Your task to perform on an android device: open app "YouTube Kids" (install if not already installed) Image 0: 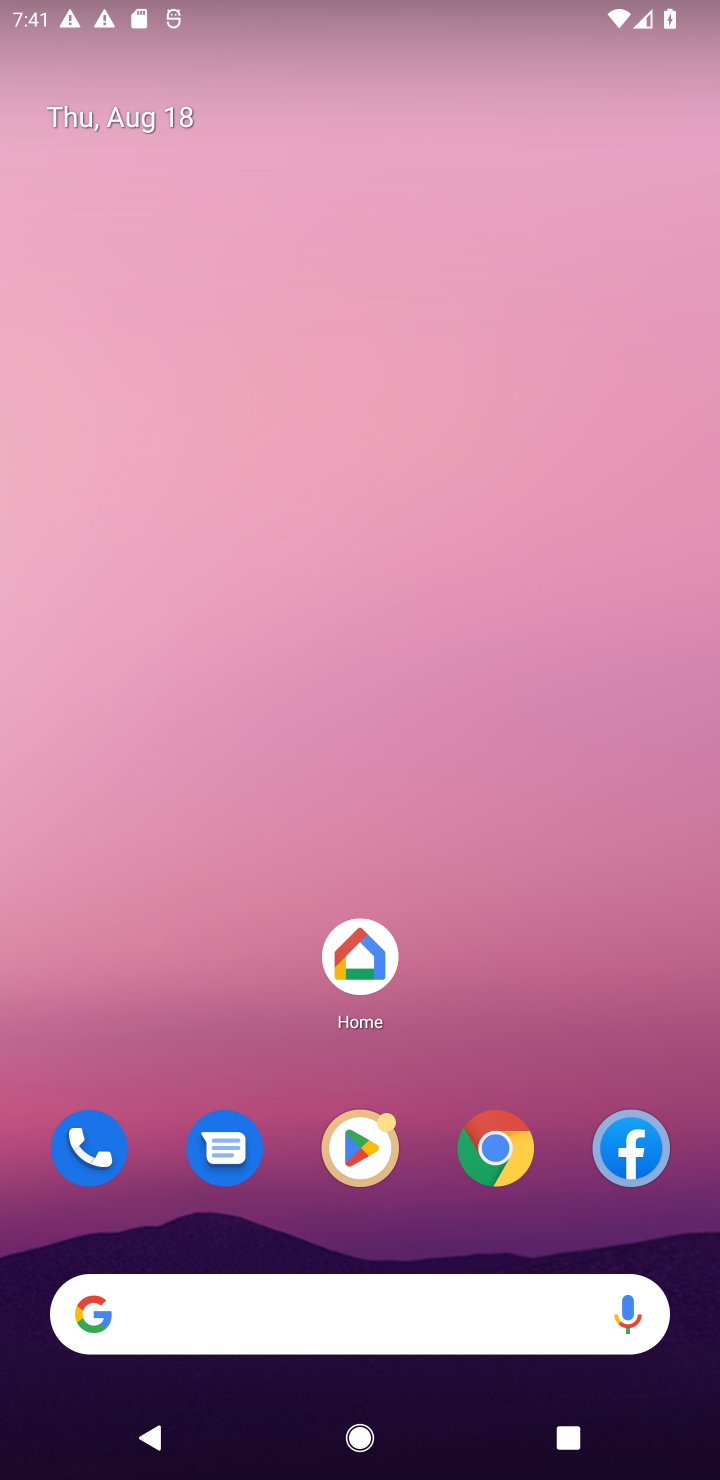
Step 0: drag from (260, 1154) to (5, 162)
Your task to perform on an android device: open app "YouTube Kids" (install if not already installed) Image 1: 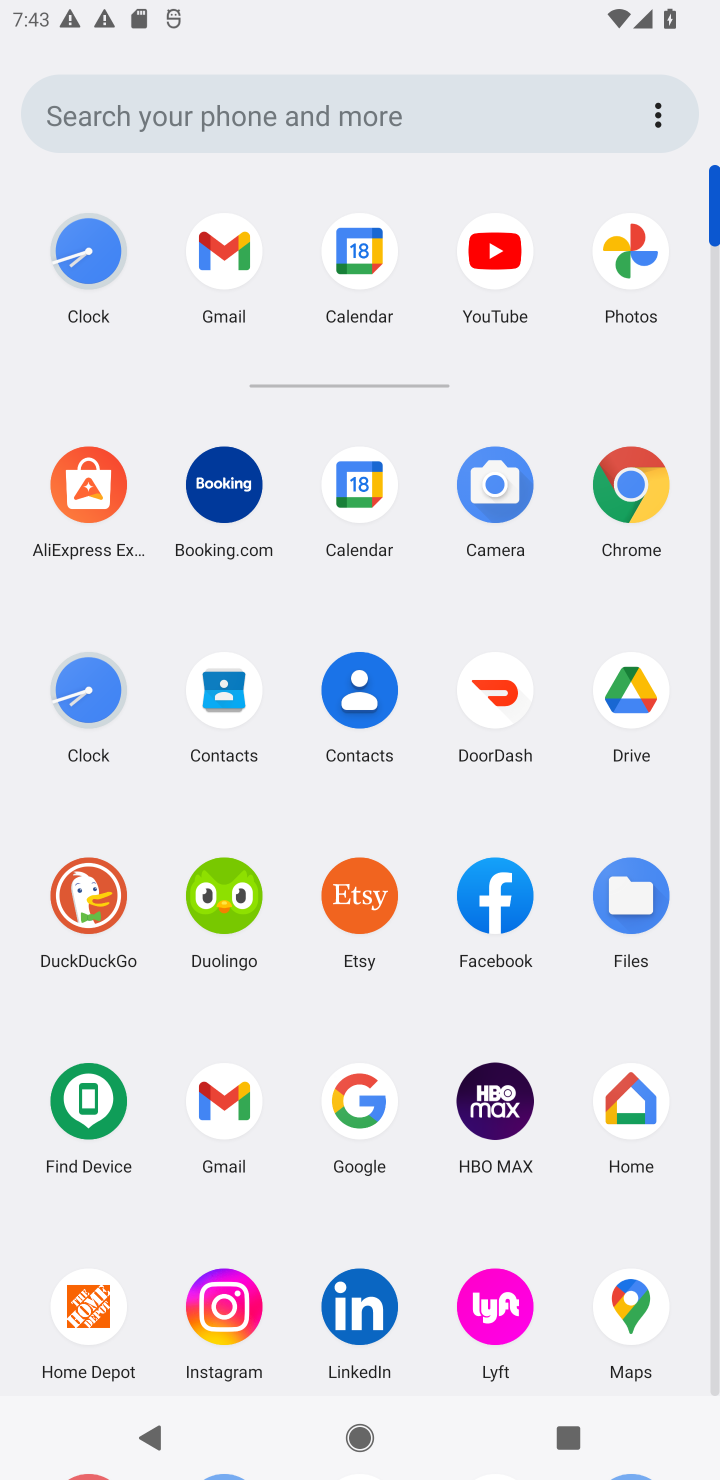
Step 1: drag from (362, 888) to (301, 228)
Your task to perform on an android device: open app "YouTube Kids" (install if not already installed) Image 2: 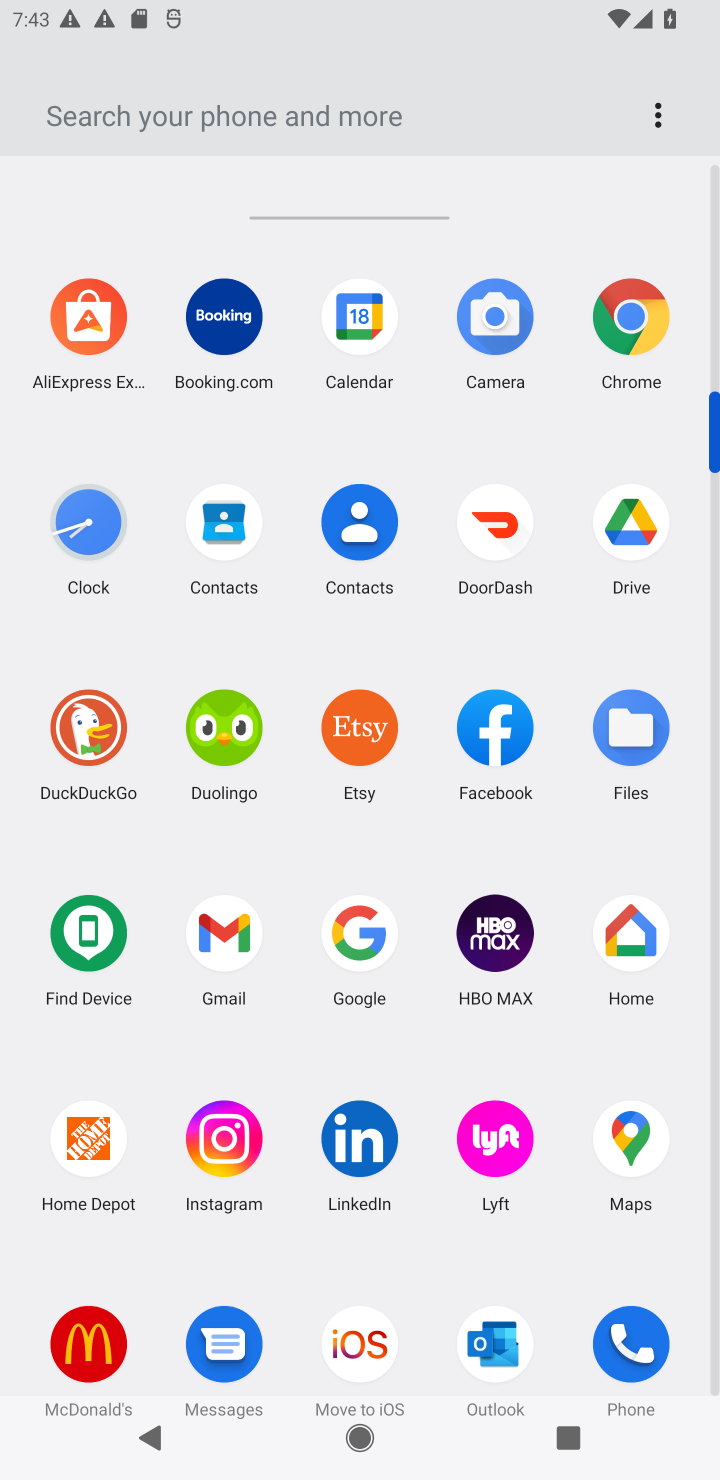
Step 2: drag from (259, 1040) to (369, 318)
Your task to perform on an android device: open app "YouTube Kids" (install if not already installed) Image 3: 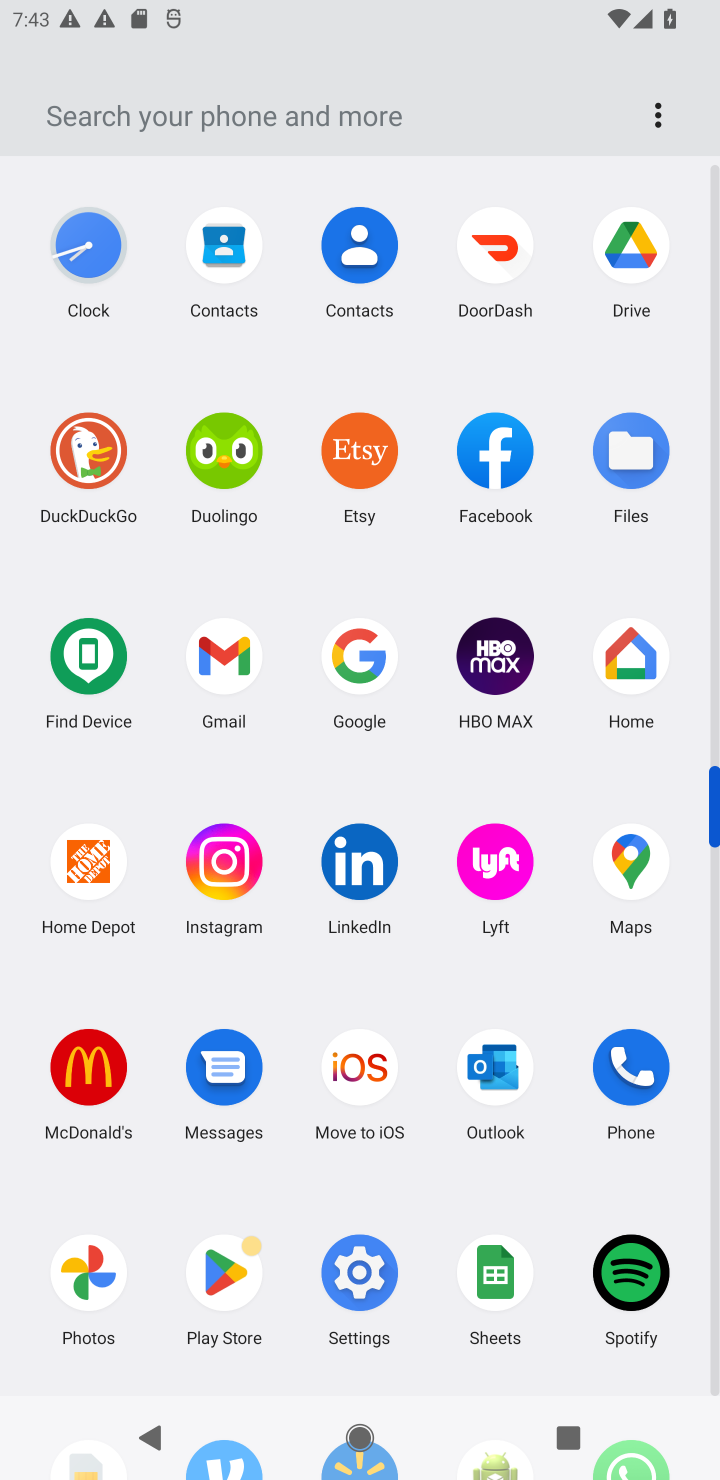
Step 3: drag from (236, 975) to (365, 411)
Your task to perform on an android device: open app "YouTube Kids" (install if not already installed) Image 4: 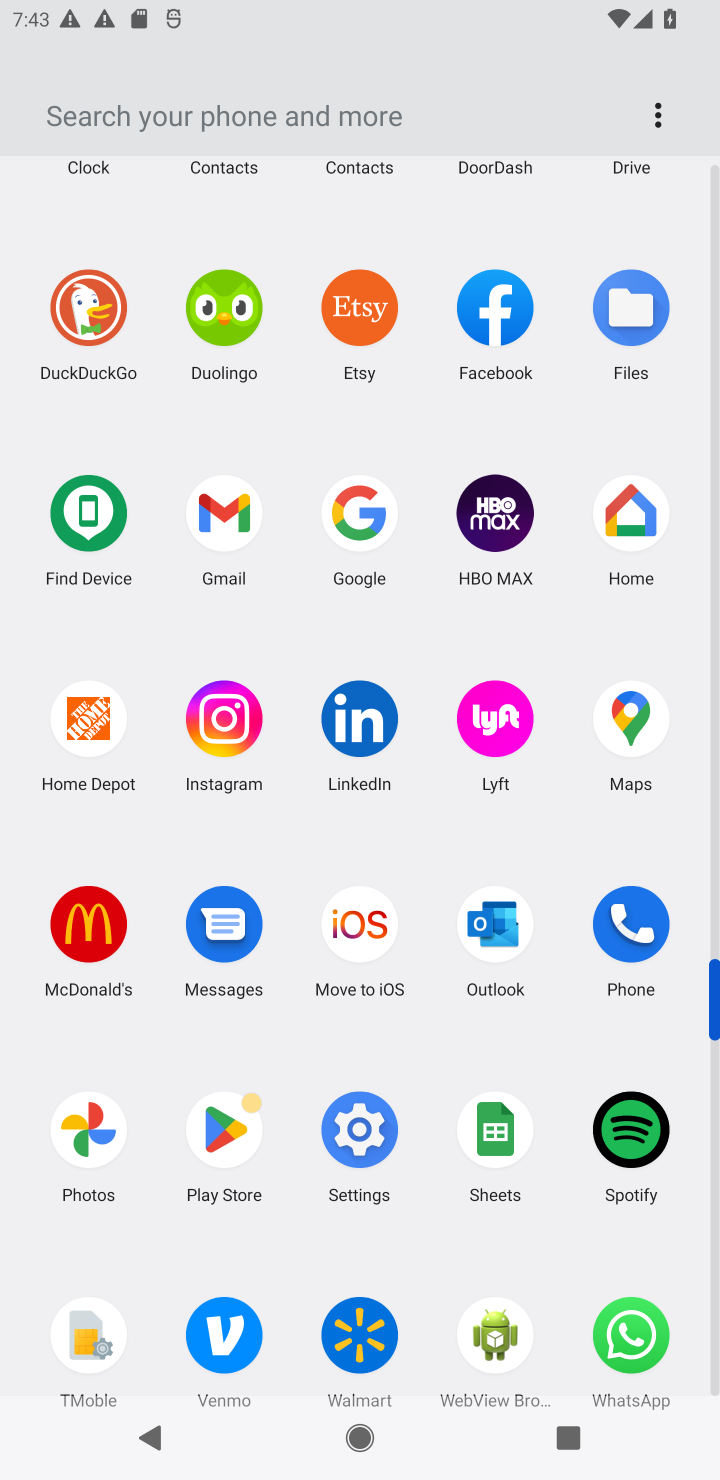
Step 4: drag from (358, 1384) to (402, 503)
Your task to perform on an android device: open app "YouTube Kids" (install if not already installed) Image 5: 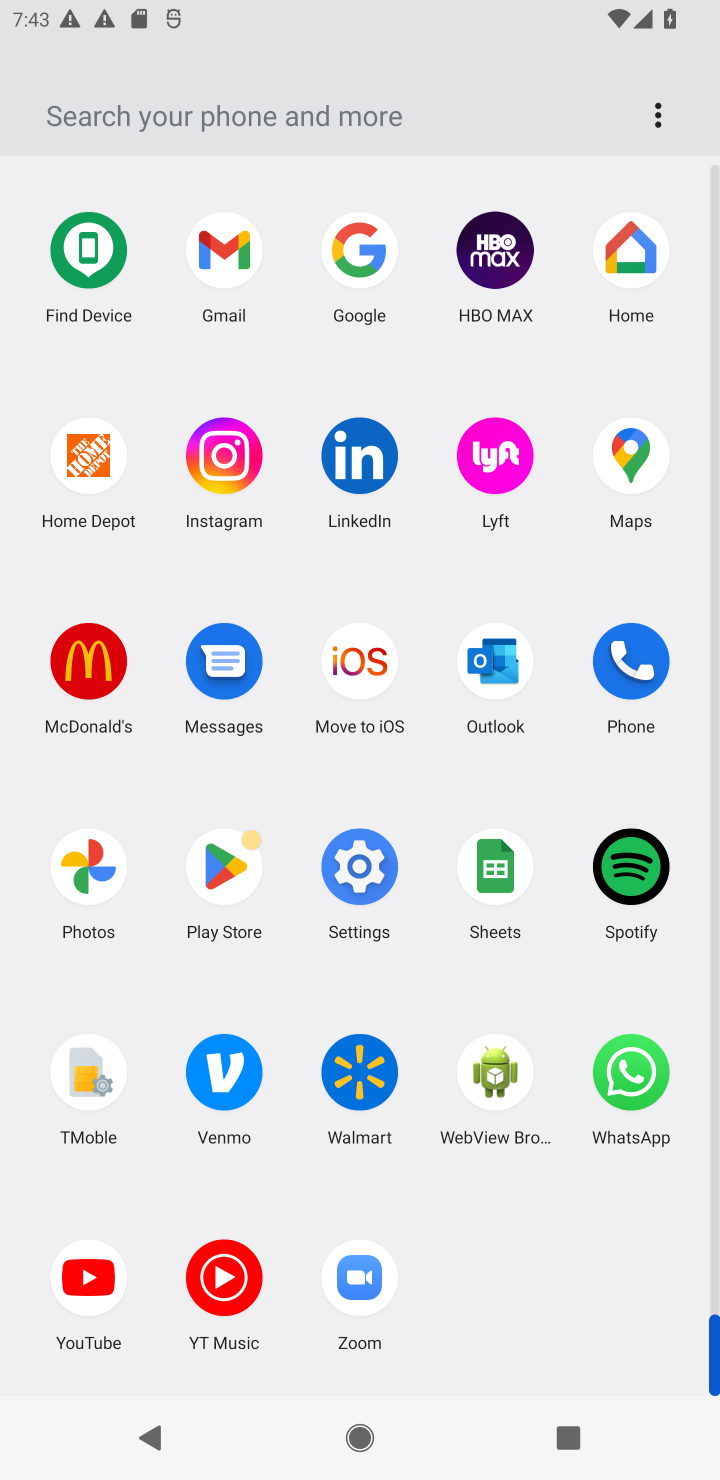
Step 5: click (238, 878)
Your task to perform on an android device: open app "YouTube Kids" (install if not already installed) Image 6: 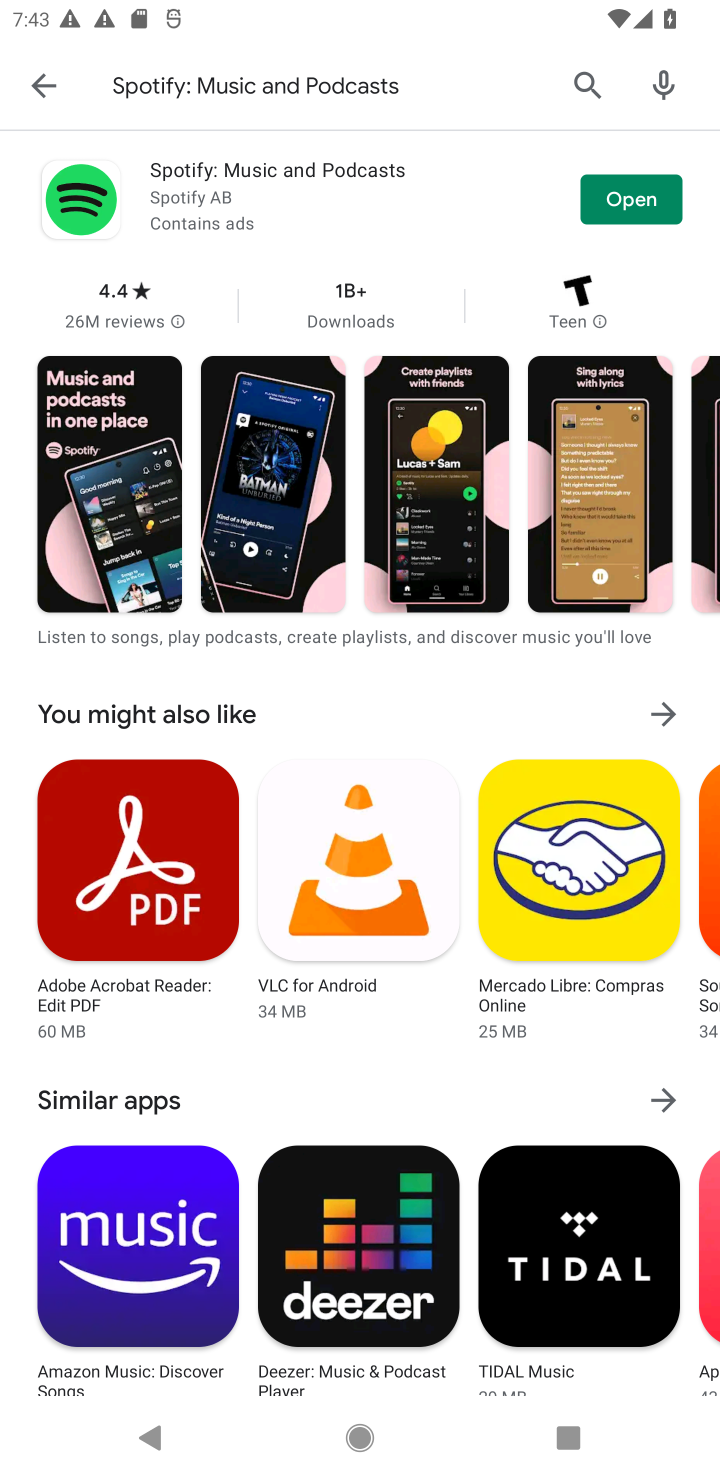
Step 6: press back button
Your task to perform on an android device: open app "YouTube Kids" (install if not already installed) Image 7: 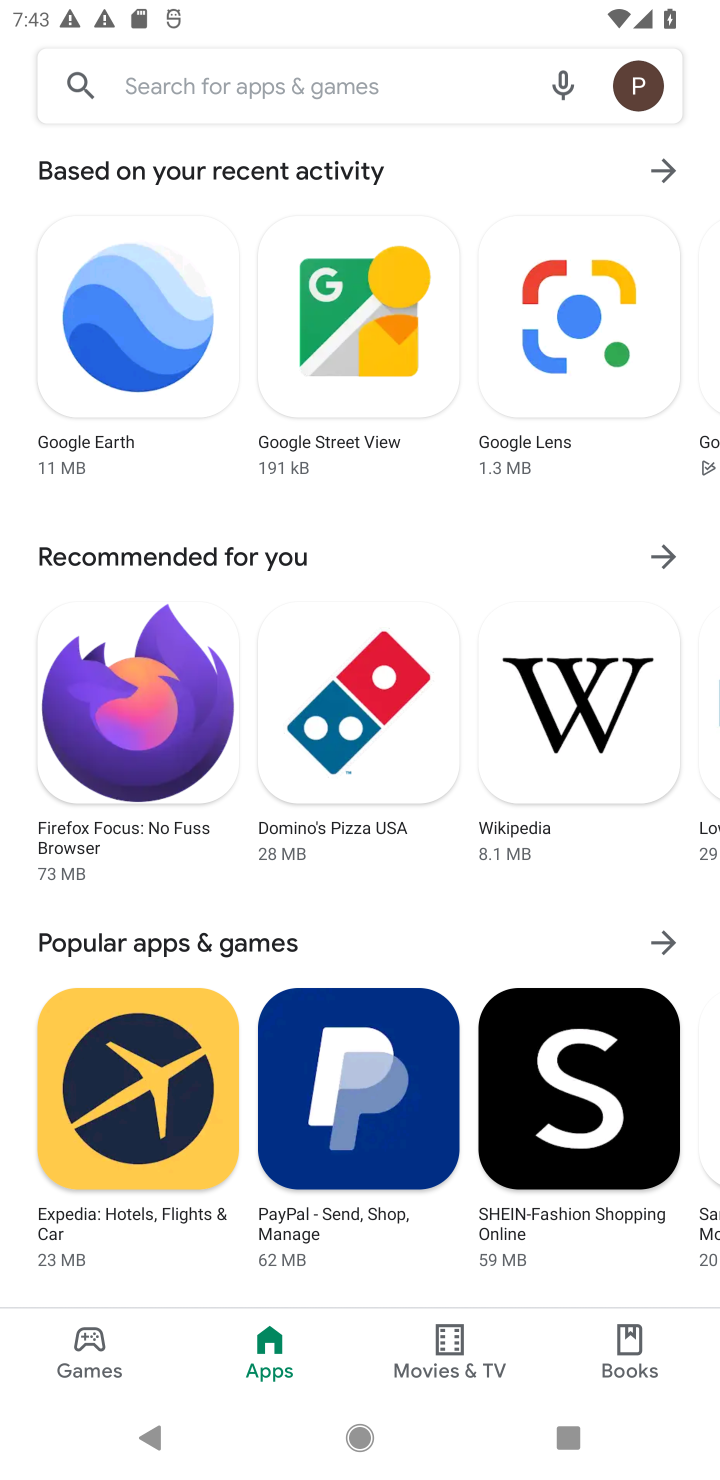
Step 7: click (280, 65)
Your task to perform on an android device: open app "YouTube Kids" (install if not already installed) Image 8: 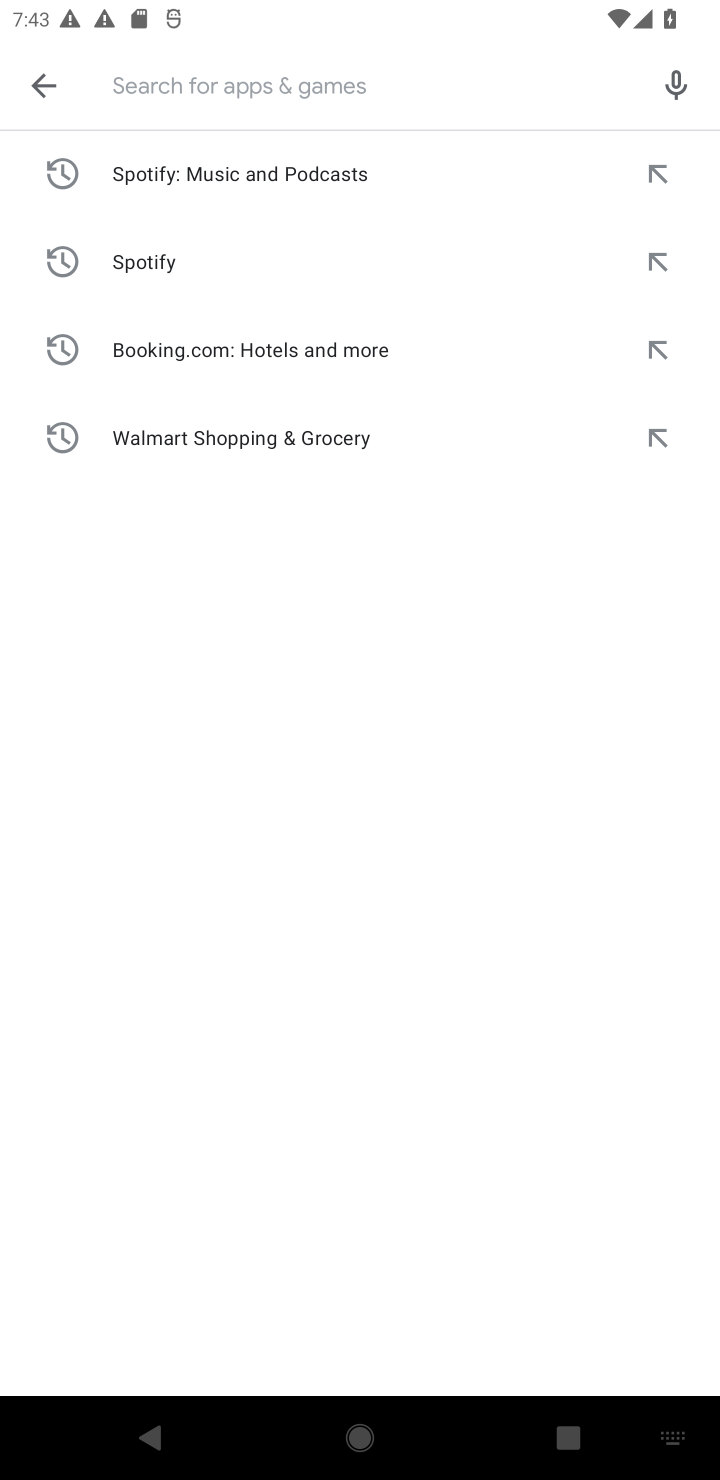
Step 8: type "YouTube Kids"
Your task to perform on an android device: open app "YouTube Kids" (install if not already installed) Image 9: 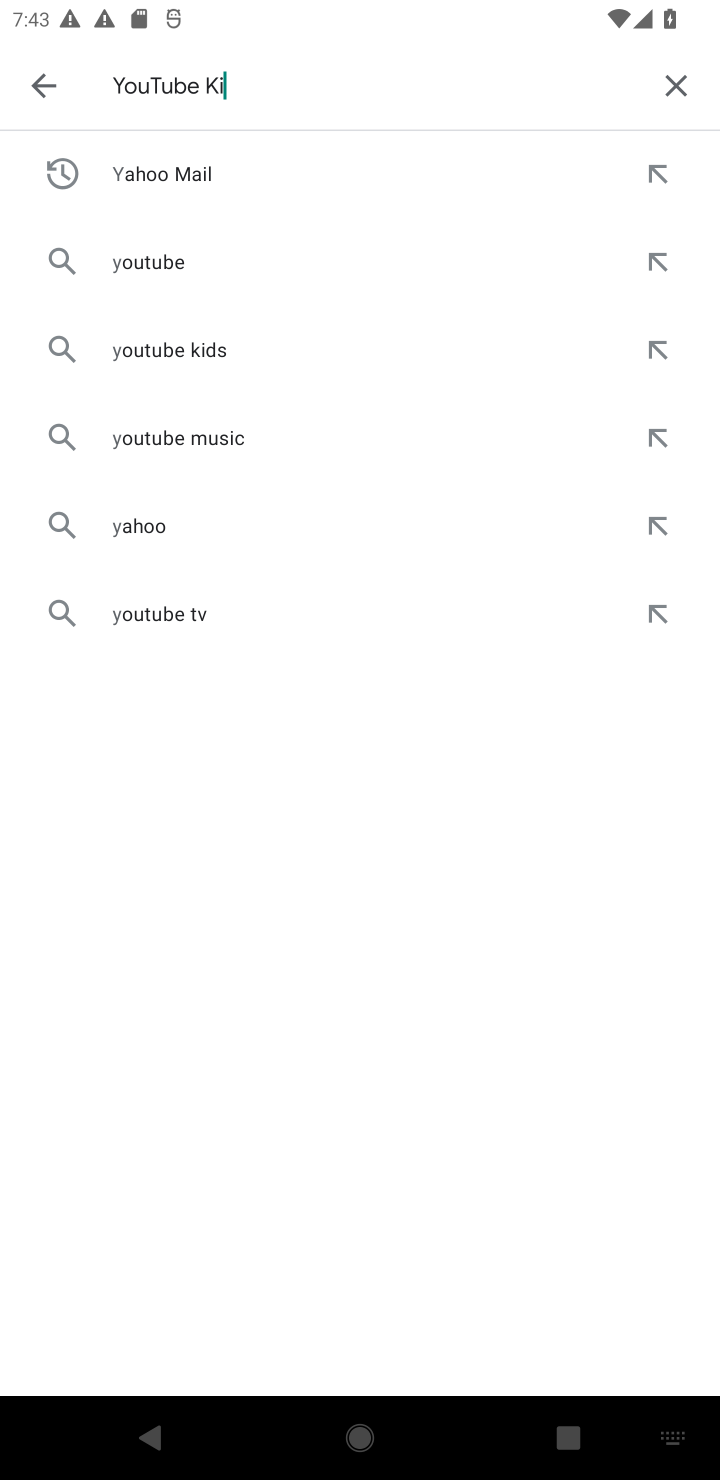
Step 9: press enter
Your task to perform on an android device: open app "YouTube Kids" (install if not already installed) Image 10: 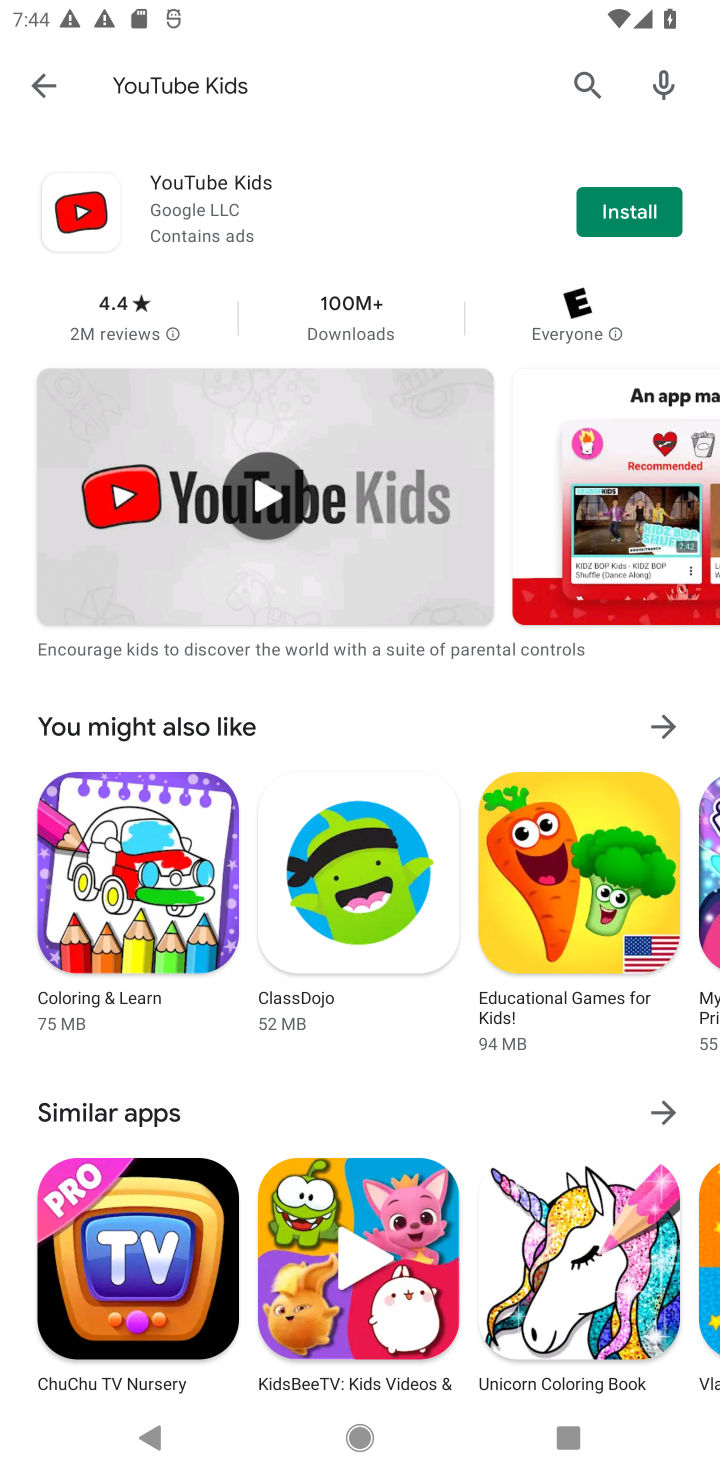
Step 10: click (630, 202)
Your task to perform on an android device: open app "YouTube Kids" (install if not already installed) Image 11: 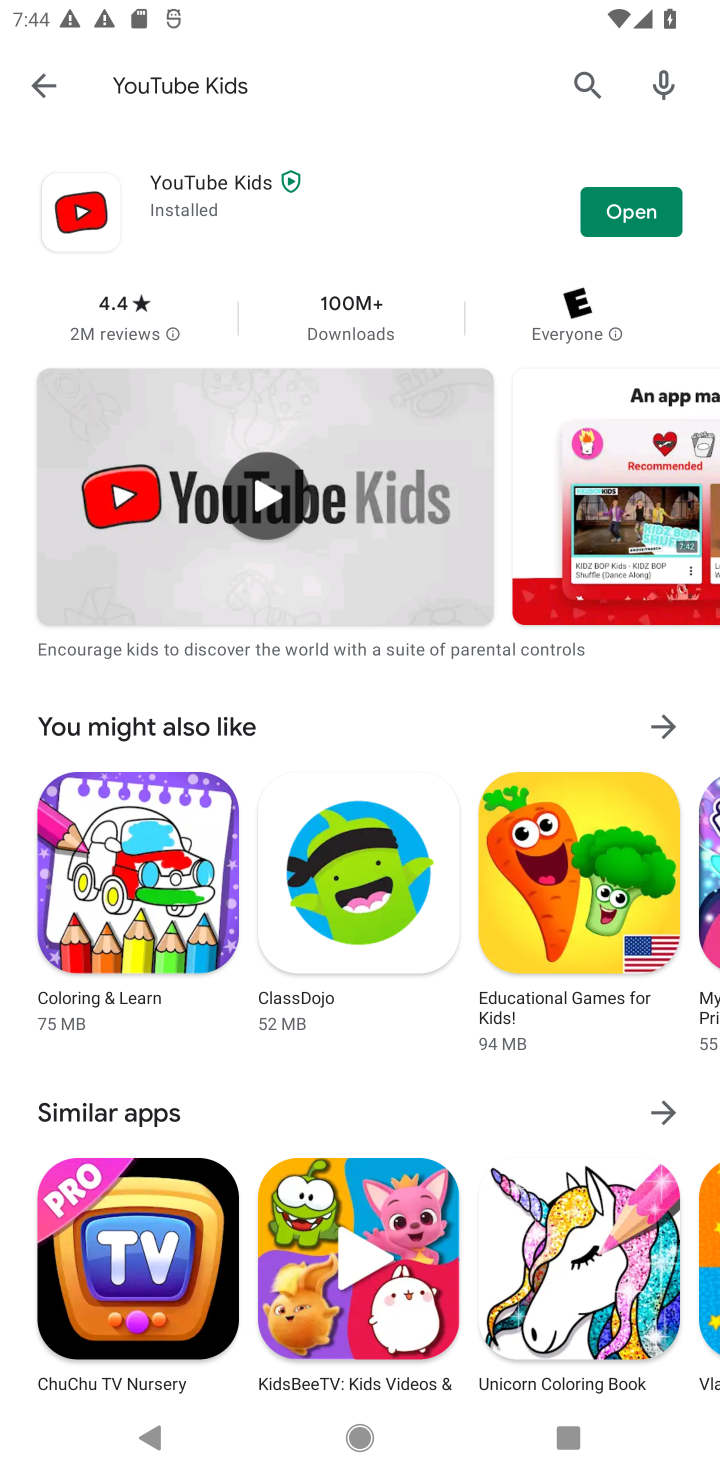
Step 11: click (617, 225)
Your task to perform on an android device: open app "YouTube Kids" (install if not already installed) Image 12: 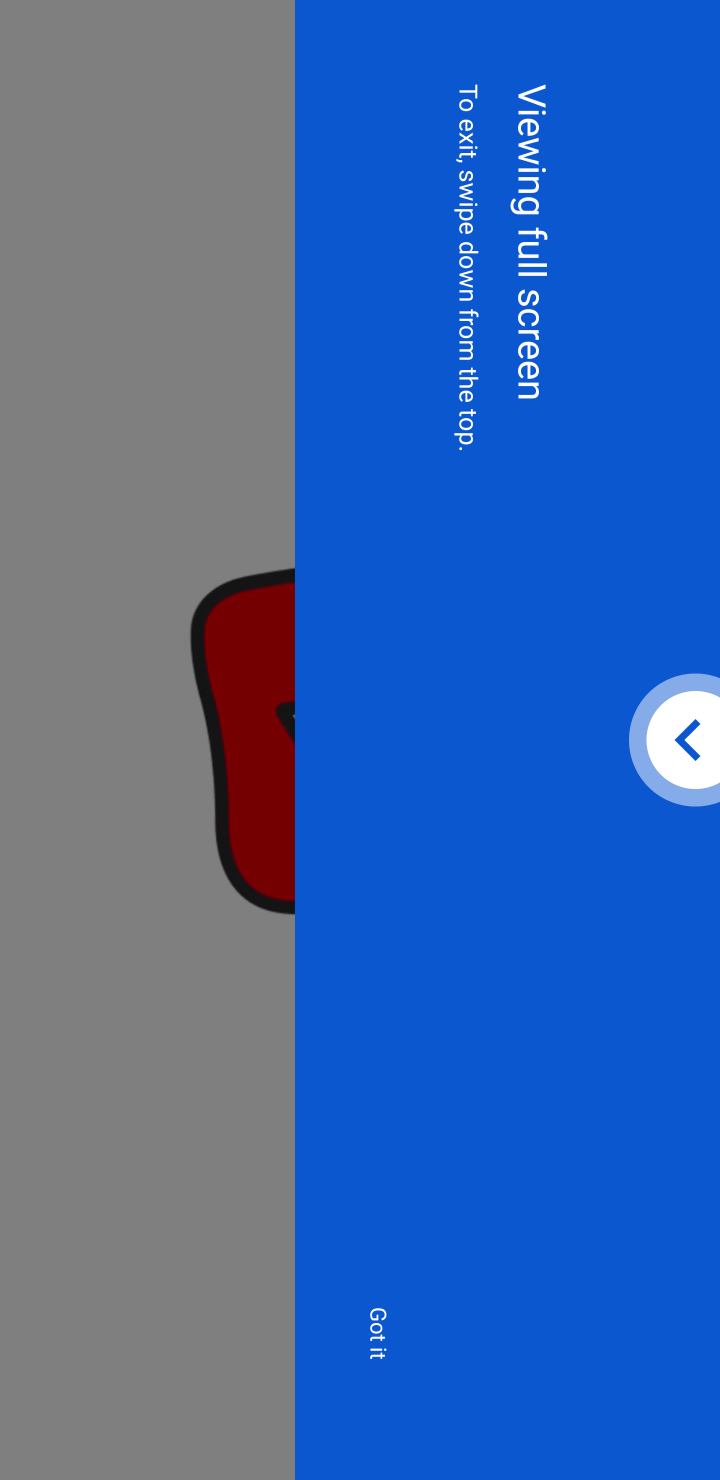
Step 12: click (389, 1327)
Your task to perform on an android device: open app "YouTube Kids" (install if not already installed) Image 13: 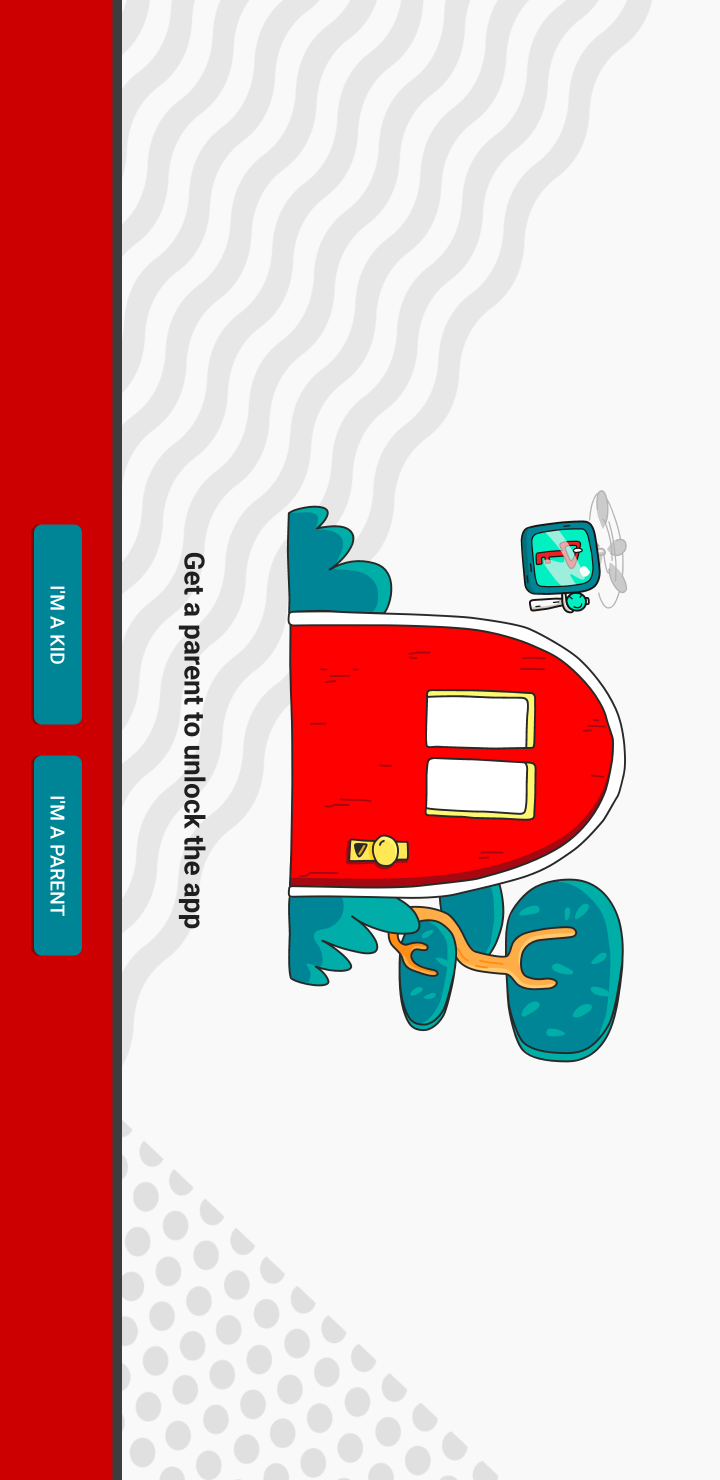
Step 13: task complete